Your task to perform on an android device: Turn off the flashlight Image 0: 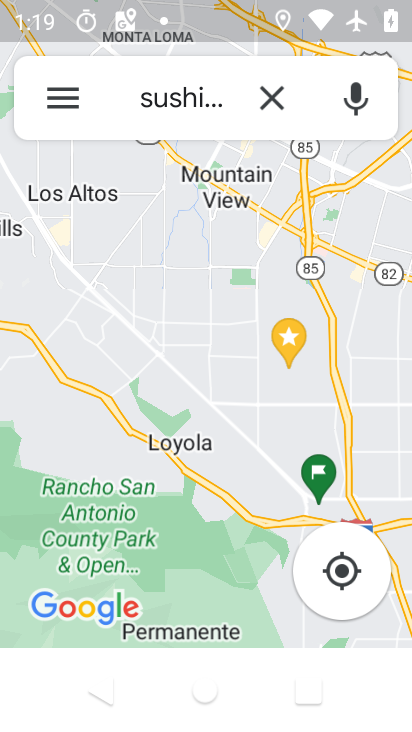
Step 0: press home button
Your task to perform on an android device: Turn off the flashlight Image 1: 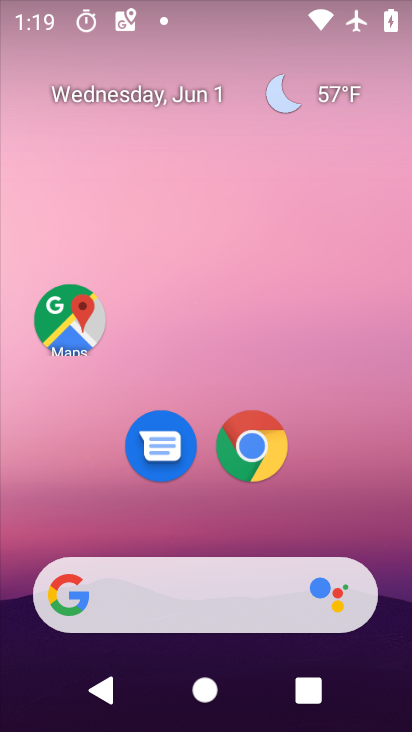
Step 1: drag from (199, 488) to (224, 218)
Your task to perform on an android device: Turn off the flashlight Image 2: 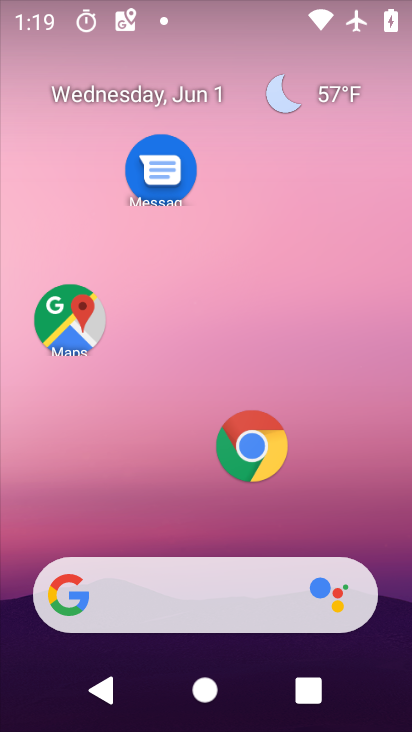
Step 2: drag from (188, 504) to (225, 150)
Your task to perform on an android device: Turn off the flashlight Image 3: 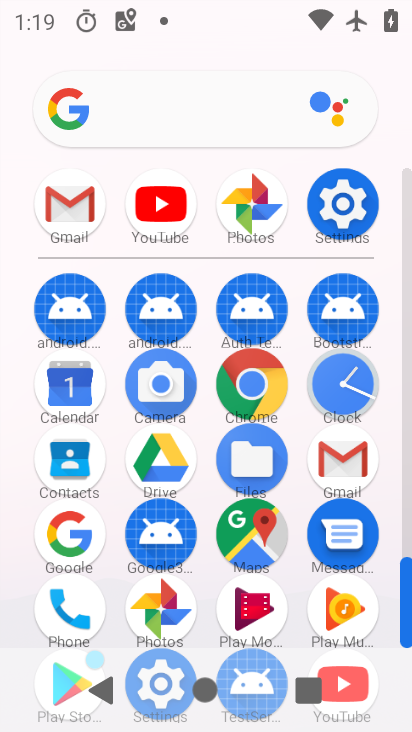
Step 3: drag from (197, 260) to (212, 66)
Your task to perform on an android device: Turn off the flashlight Image 4: 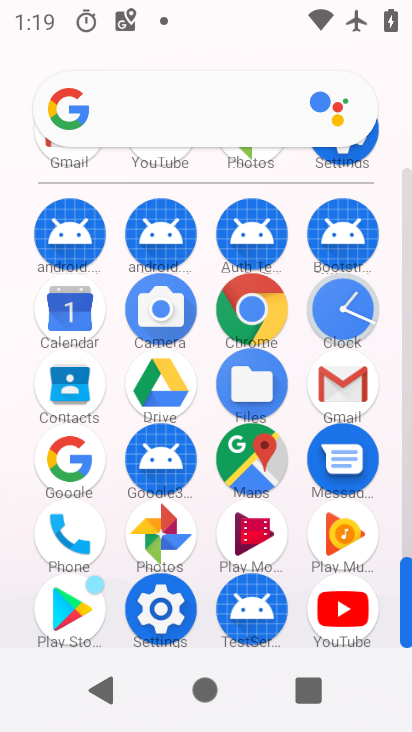
Step 4: click (186, 636)
Your task to perform on an android device: Turn off the flashlight Image 5: 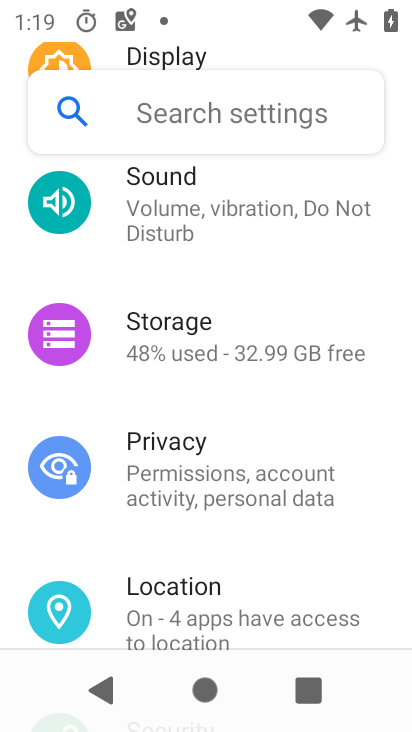
Step 5: task complete